Your task to perform on an android device: Search for top rated burger restaurants on Maps Image 0: 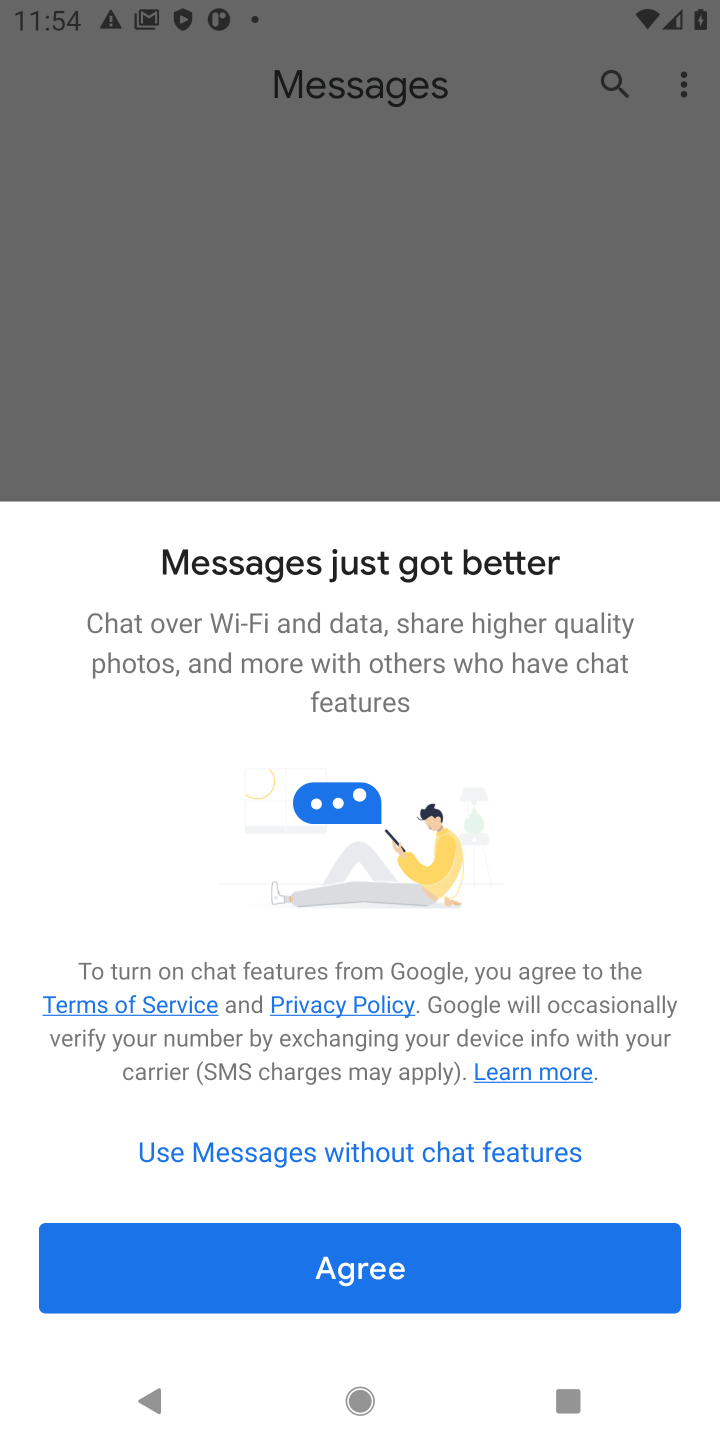
Step 0: press home button
Your task to perform on an android device: Search for top rated burger restaurants on Maps Image 1: 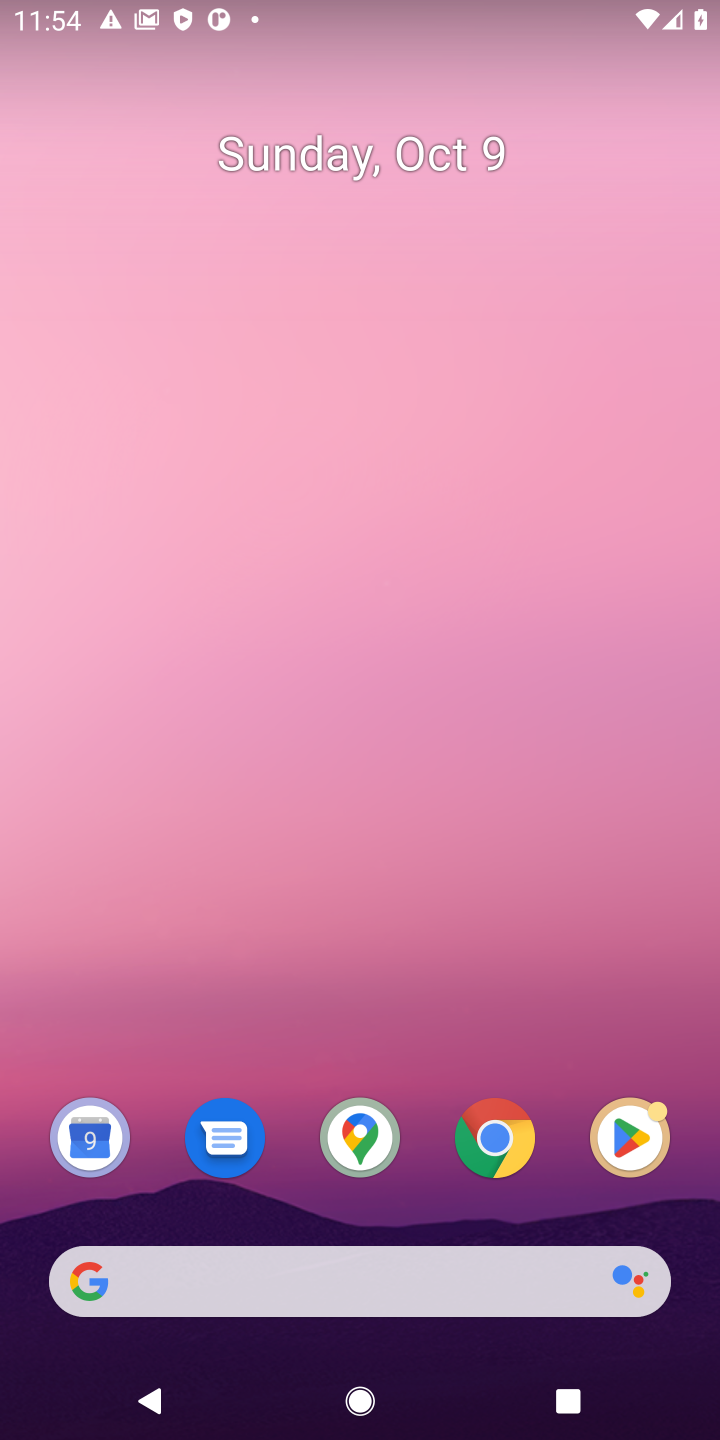
Step 1: click (486, 1133)
Your task to perform on an android device: Search for top rated burger restaurants on Maps Image 2: 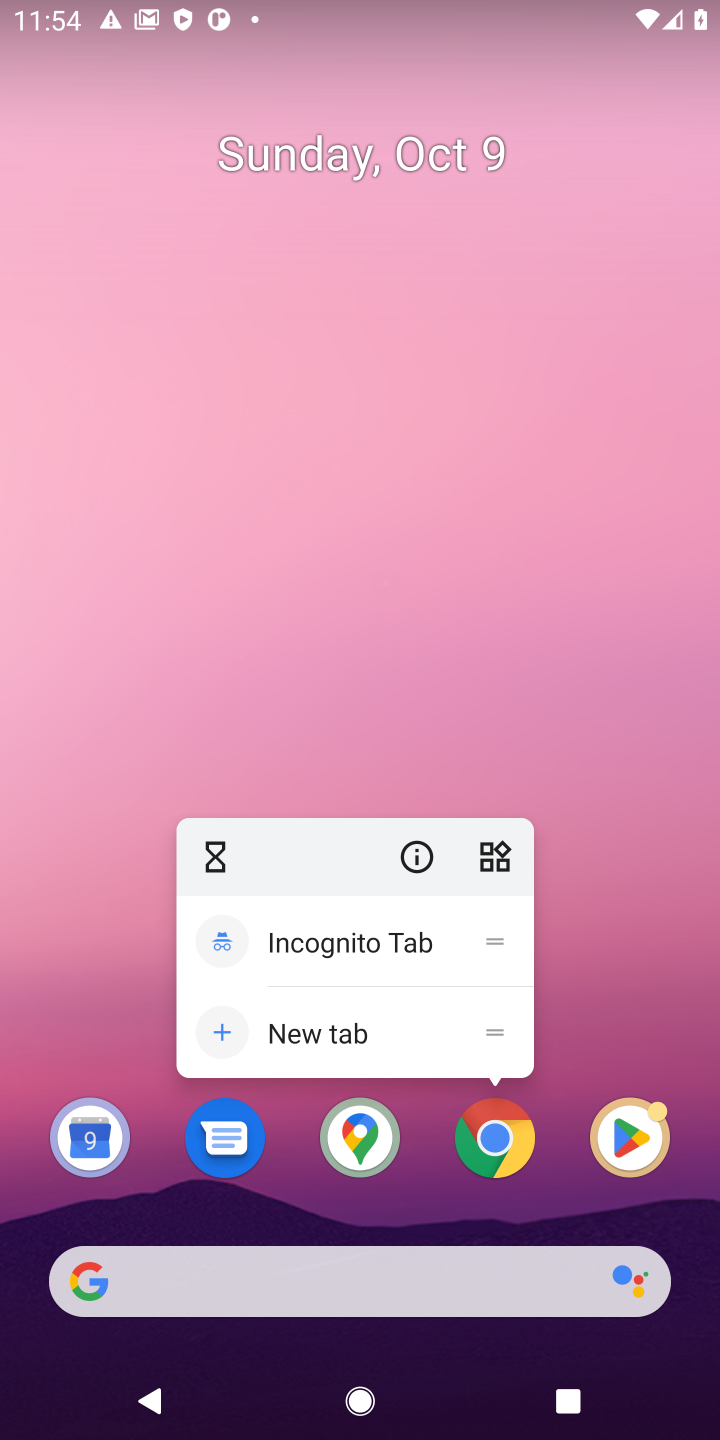
Step 2: click (486, 1133)
Your task to perform on an android device: Search for top rated burger restaurants on Maps Image 3: 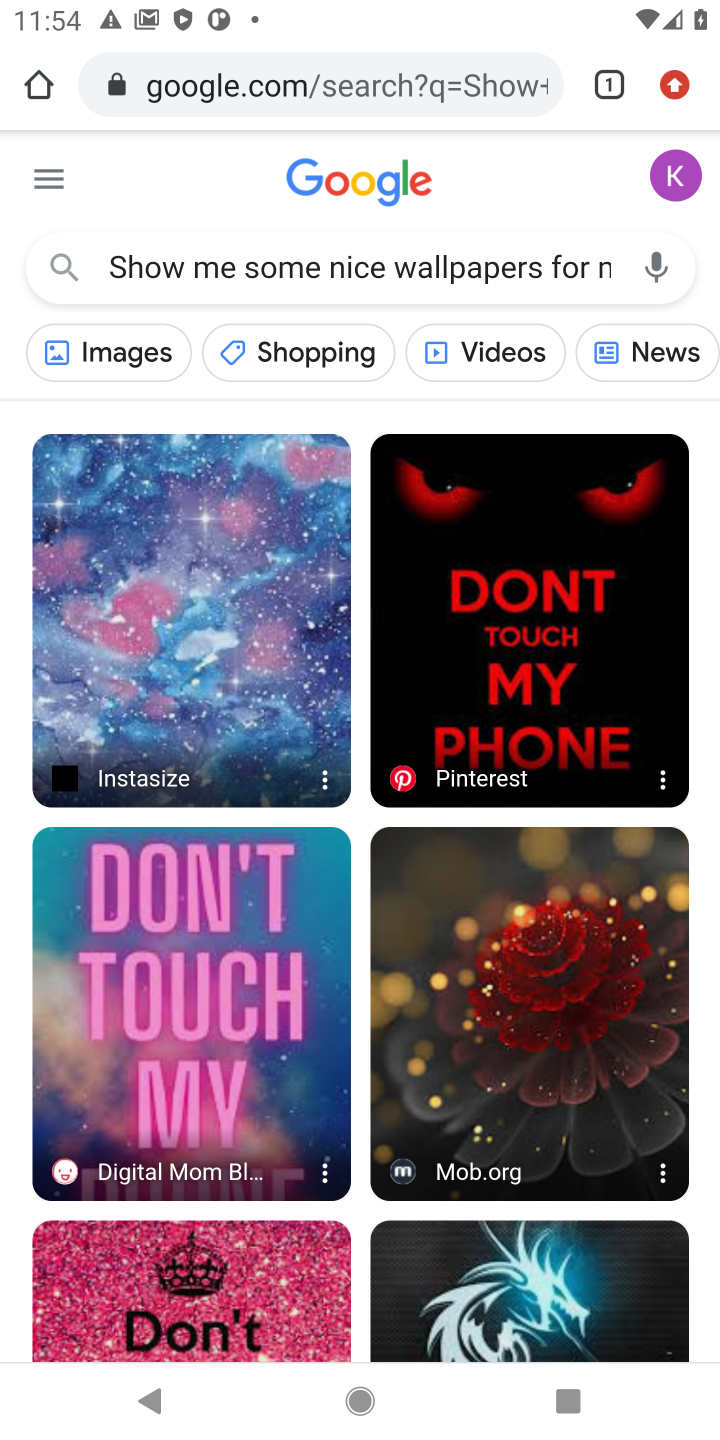
Step 3: click (418, 232)
Your task to perform on an android device: Search for top rated burger restaurants on Maps Image 4: 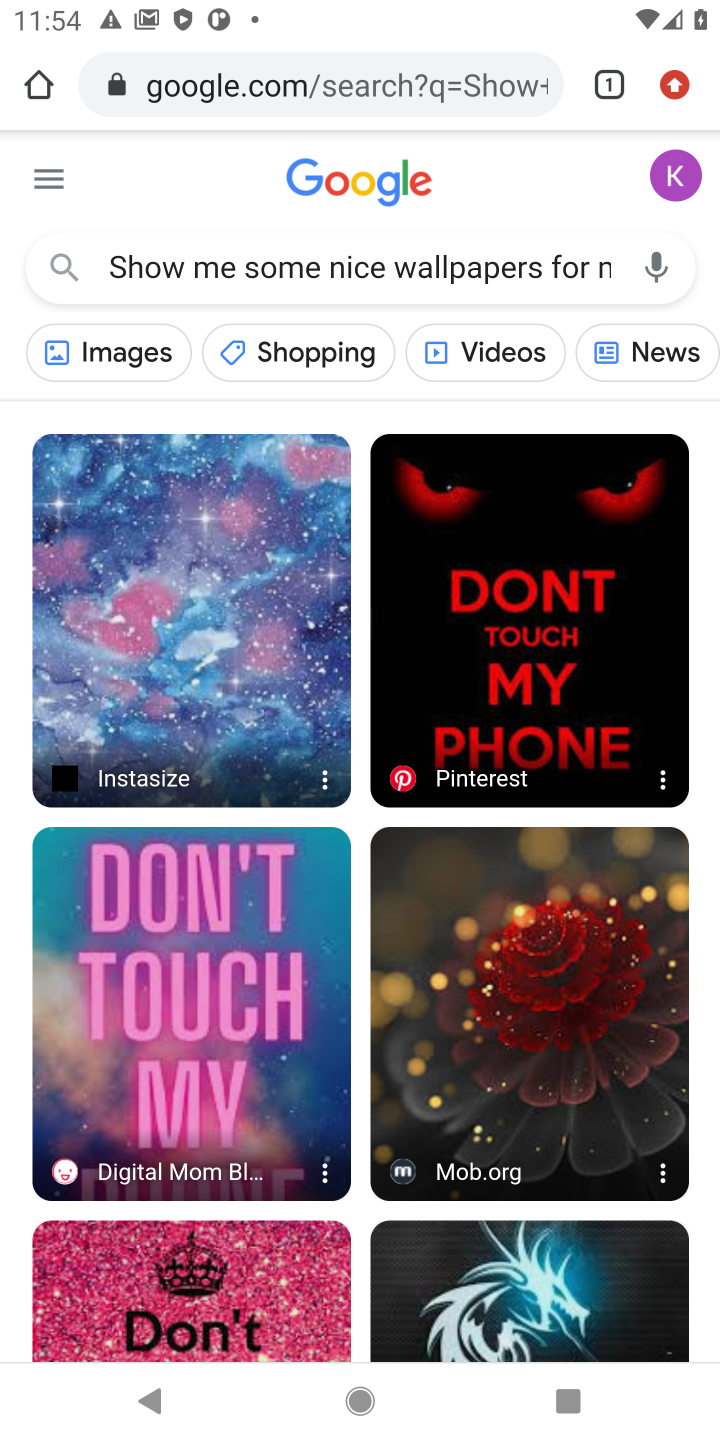
Step 4: click (533, 275)
Your task to perform on an android device: Search for top rated burger restaurants on Maps Image 5: 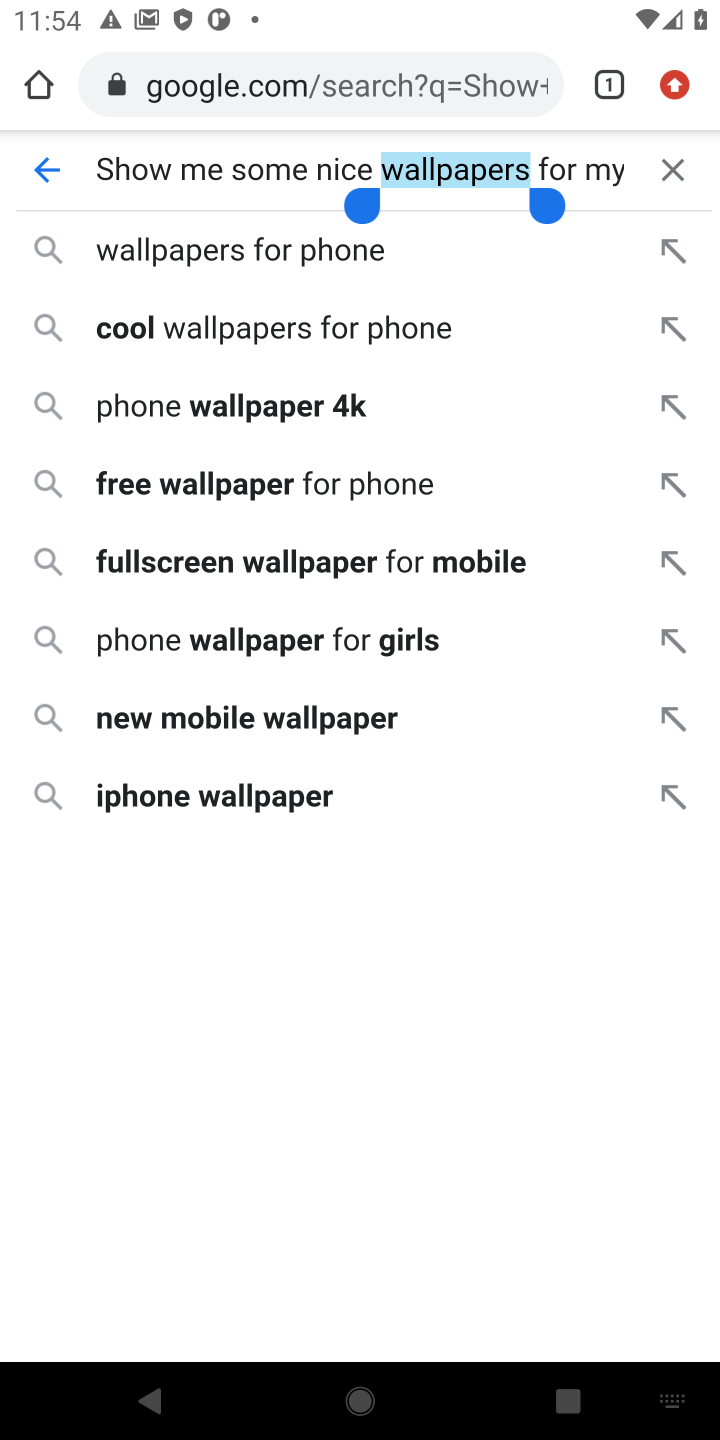
Step 5: click (674, 180)
Your task to perform on an android device: Search for top rated burger restaurants on Maps Image 6: 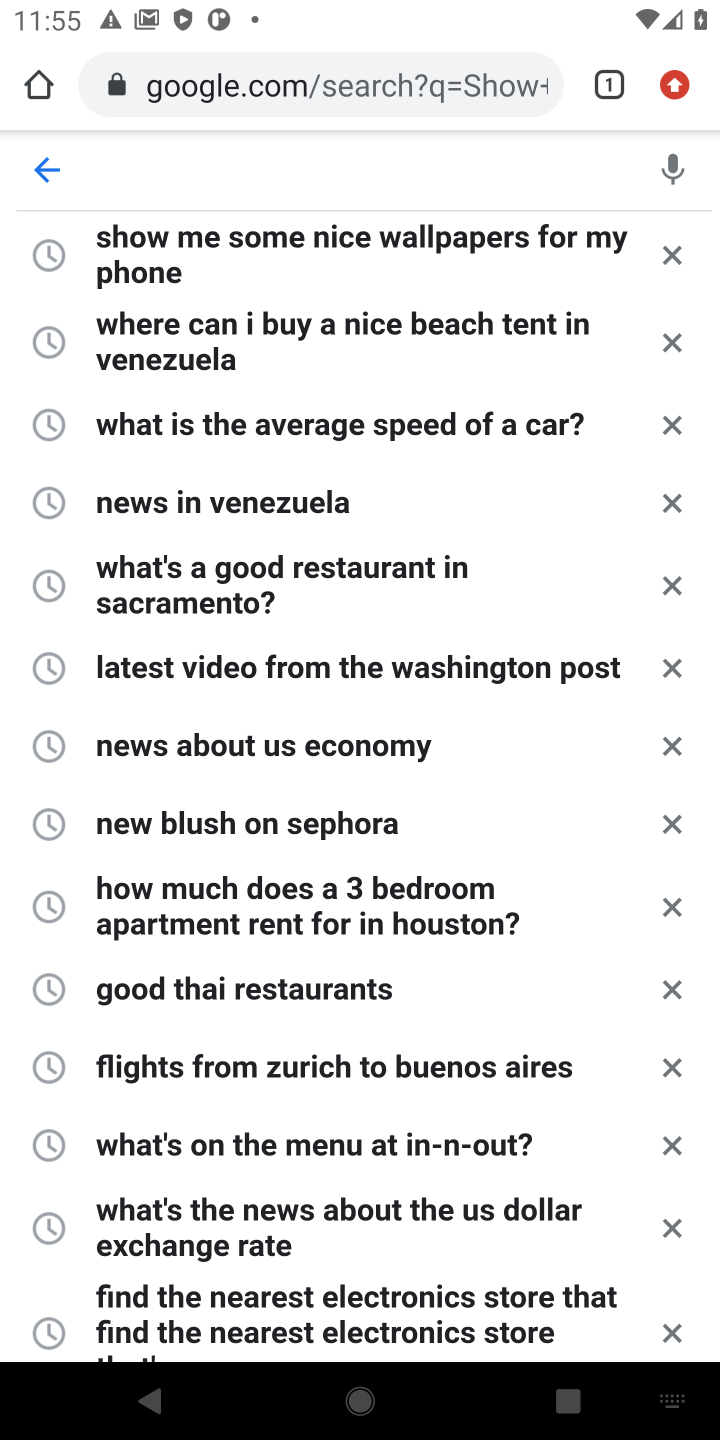
Step 6: type "top rated burger restaurants on Map"
Your task to perform on an android device: Search for top rated burger restaurants on Maps Image 7: 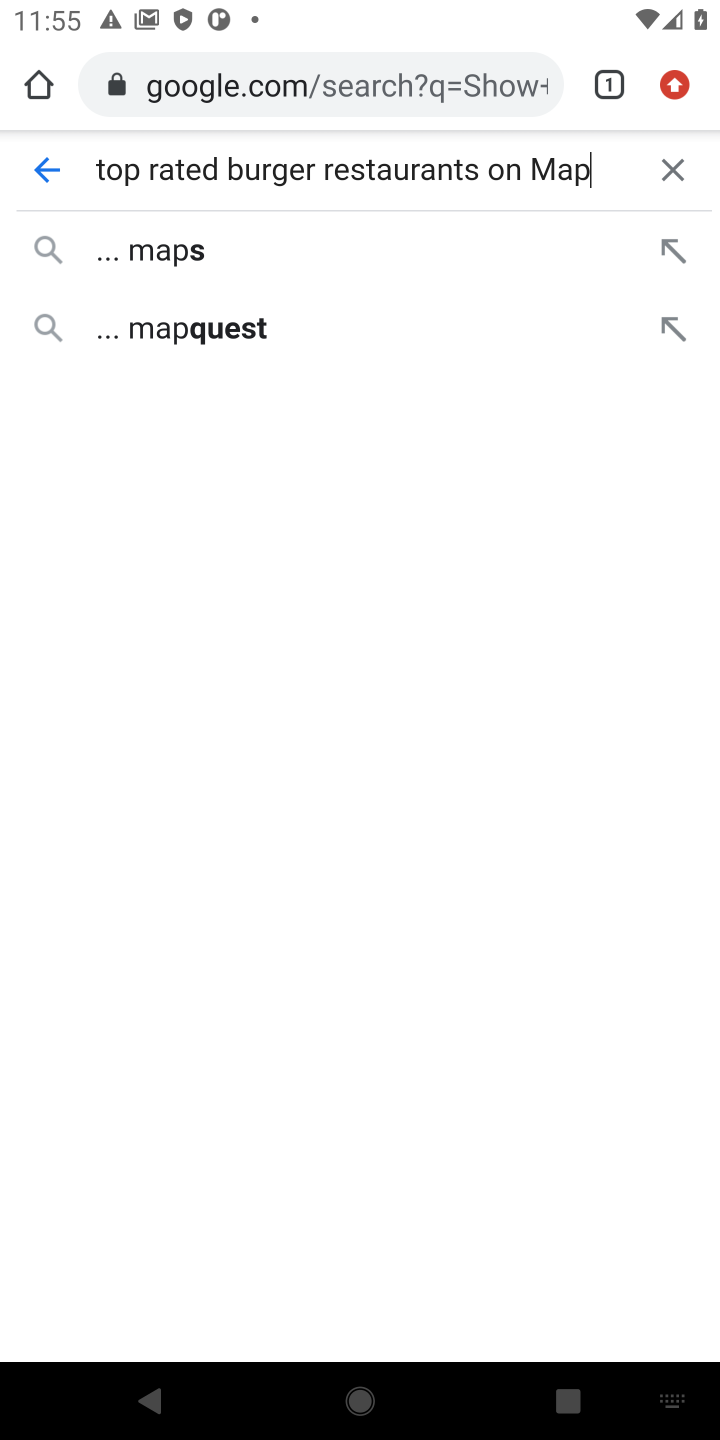
Step 7: press enter
Your task to perform on an android device: Search for top rated burger restaurants on Maps Image 8: 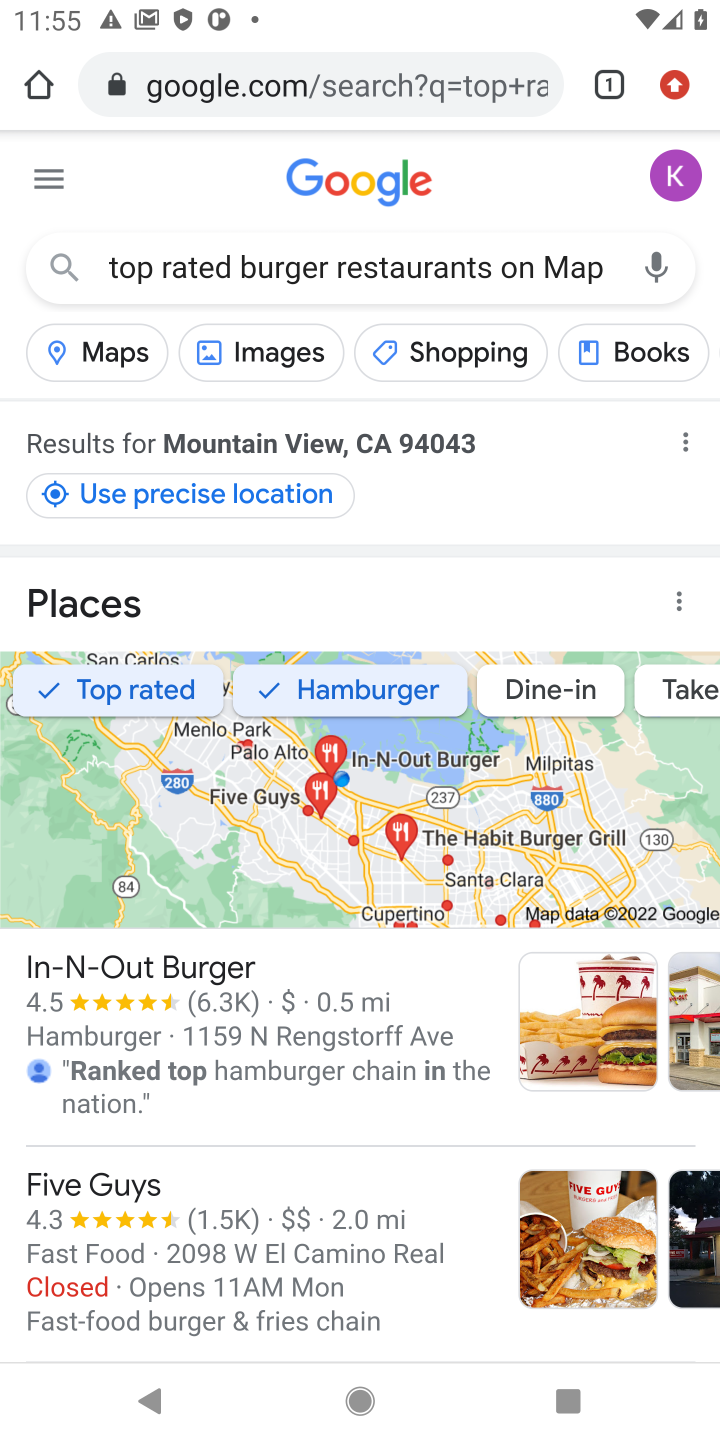
Step 8: task complete